Your task to perform on an android device: Search for seafood restaurants on Google Maps Image 0: 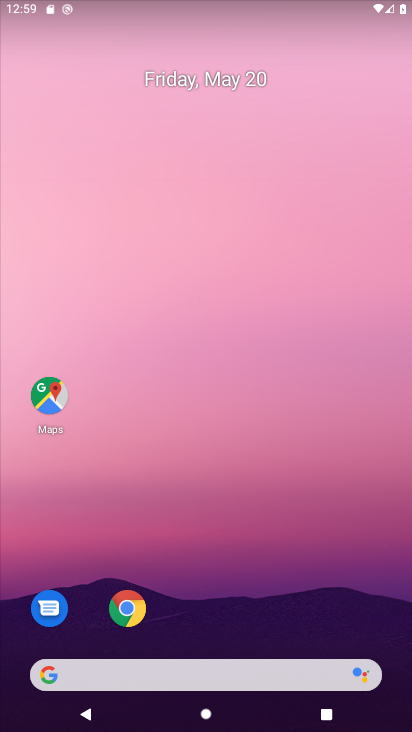
Step 0: drag from (199, 617) to (199, 277)
Your task to perform on an android device: Search for seafood restaurants on Google Maps Image 1: 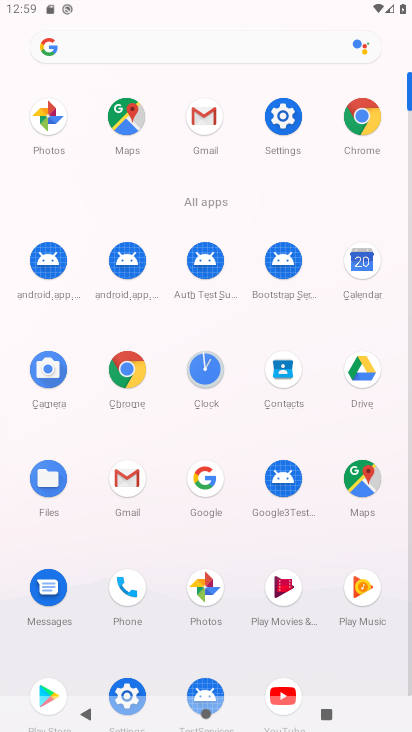
Step 1: click (127, 116)
Your task to perform on an android device: Search for seafood restaurants on Google Maps Image 2: 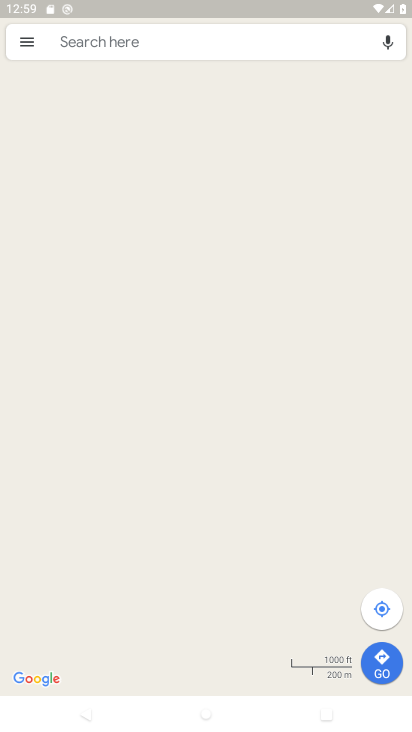
Step 2: click (193, 36)
Your task to perform on an android device: Search for seafood restaurants on Google Maps Image 3: 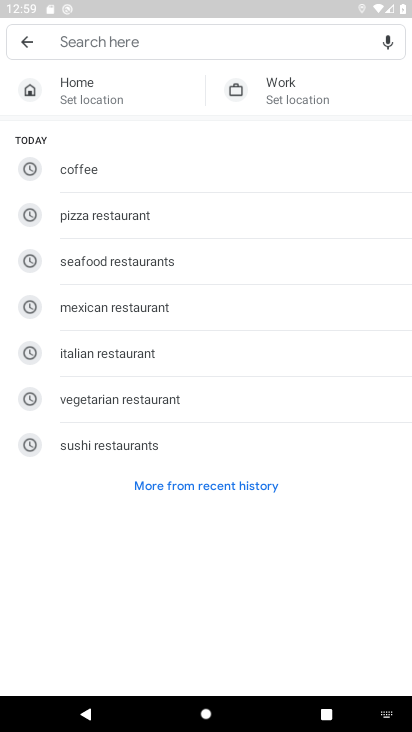
Step 3: click (144, 265)
Your task to perform on an android device: Search for seafood restaurants on Google Maps Image 4: 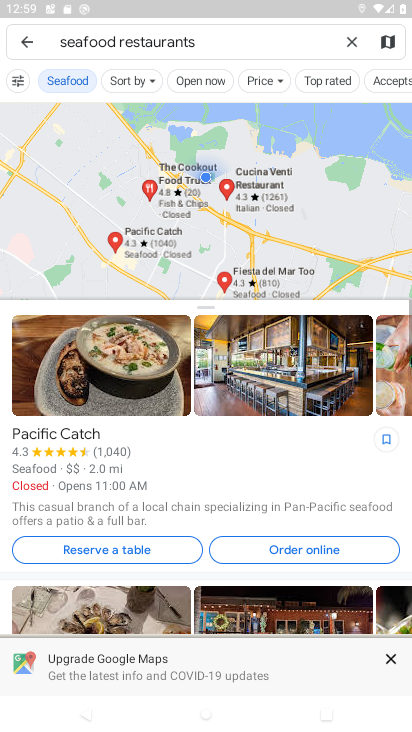
Step 4: task complete